Your task to perform on an android device: open app "Instagram" (install if not already installed) Image 0: 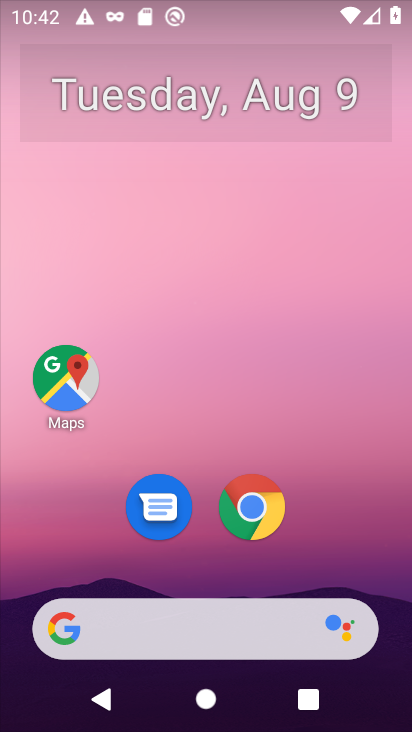
Step 0: drag from (146, 631) to (189, 172)
Your task to perform on an android device: open app "Instagram" (install if not already installed) Image 1: 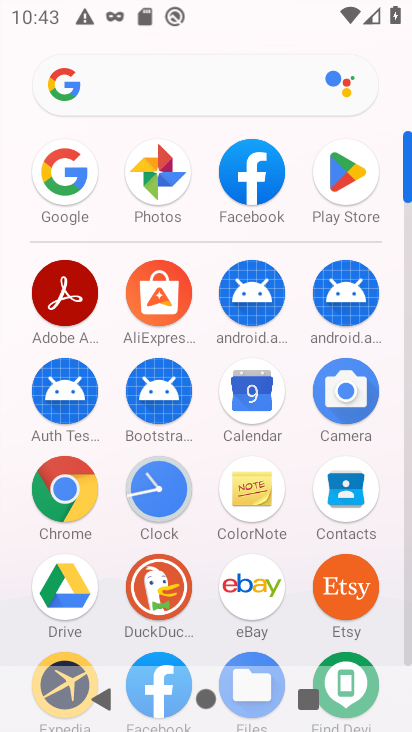
Step 1: drag from (201, 581) to (223, 436)
Your task to perform on an android device: open app "Instagram" (install if not already installed) Image 2: 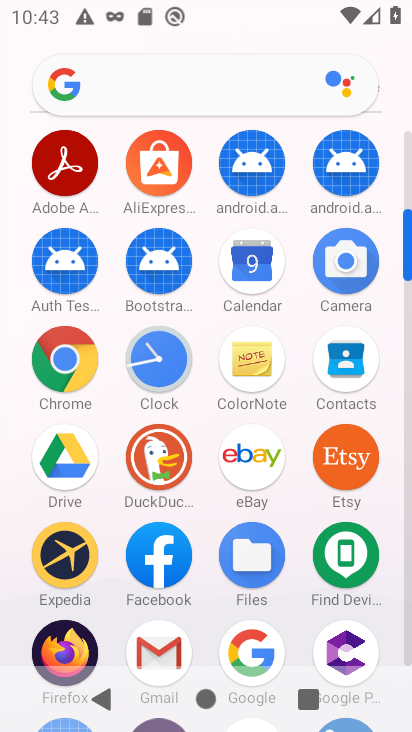
Step 2: drag from (206, 316) to (223, 533)
Your task to perform on an android device: open app "Instagram" (install if not already installed) Image 3: 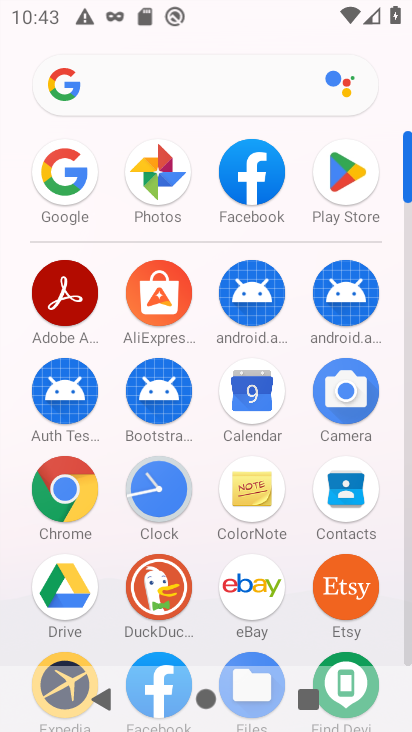
Step 3: click (352, 178)
Your task to perform on an android device: open app "Instagram" (install if not already installed) Image 4: 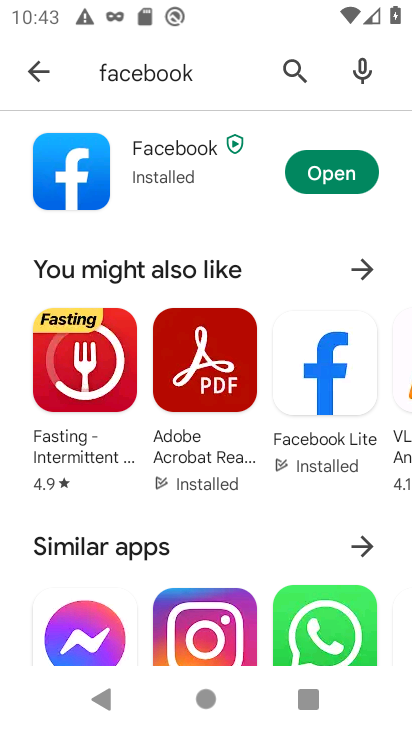
Step 4: click (294, 74)
Your task to perform on an android device: open app "Instagram" (install if not already installed) Image 5: 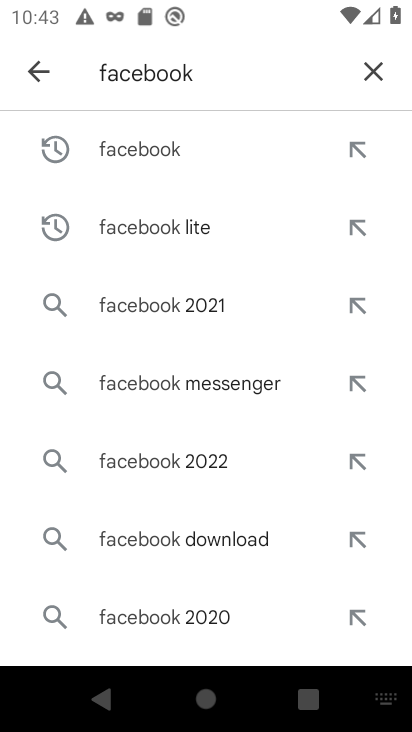
Step 5: click (378, 74)
Your task to perform on an android device: open app "Instagram" (install if not already installed) Image 6: 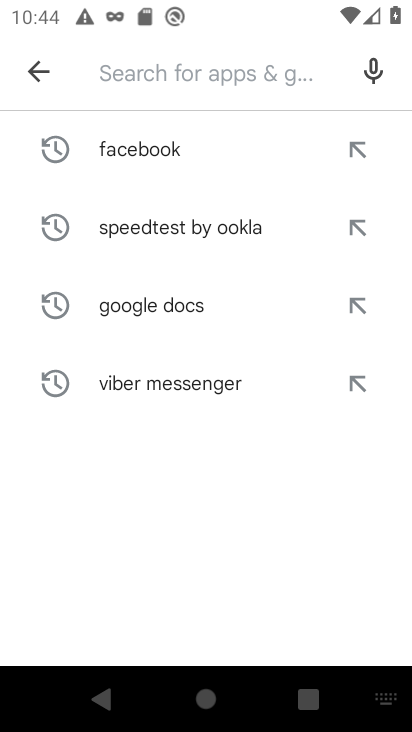
Step 6: click (203, 89)
Your task to perform on an android device: open app "Instagram" (install if not already installed) Image 7: 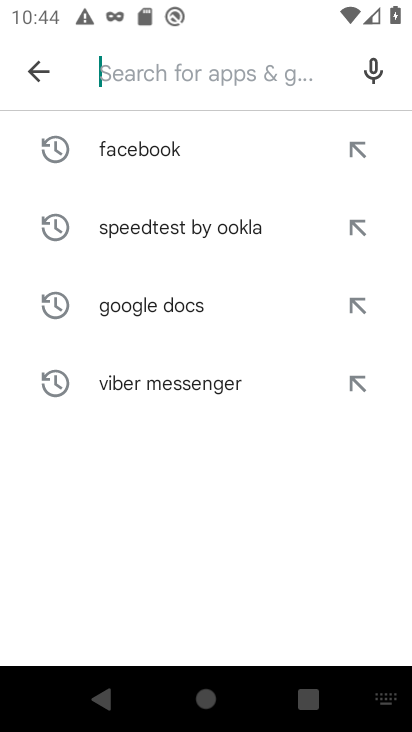
Step 7: click (203, 89)
Your task to perform on an android device: open app "Instagram" (install if not already installed) Image 8: 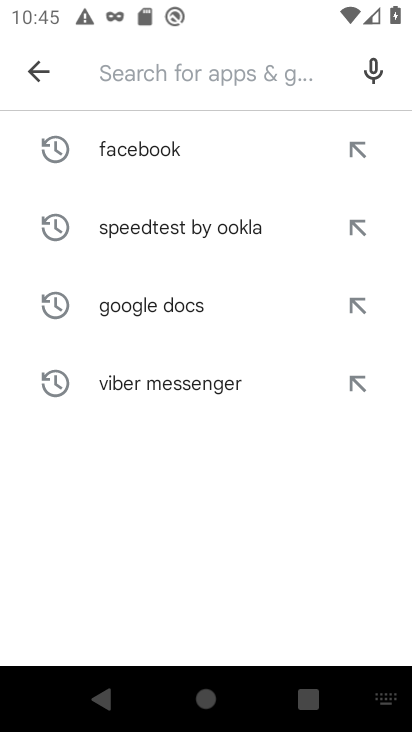
Step 8: type "Instagram"
Your task to perform on an android device: open app "Instagram" (install if not already installed) Image 9: 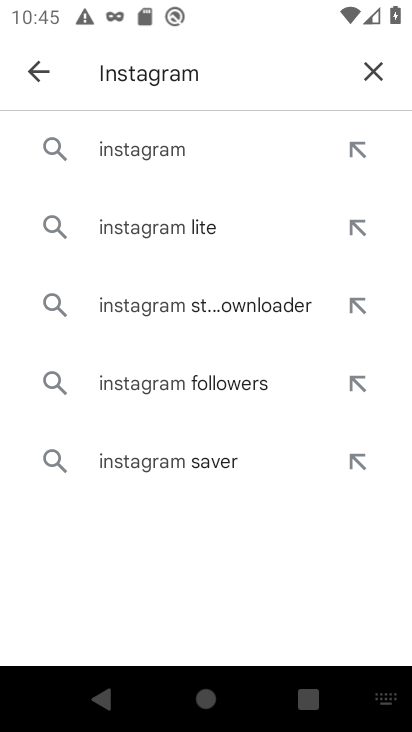
Step 9: click (119, 153)
Your task to perform on an android device: open app "Instagram" (install if not already installed) Image 10: 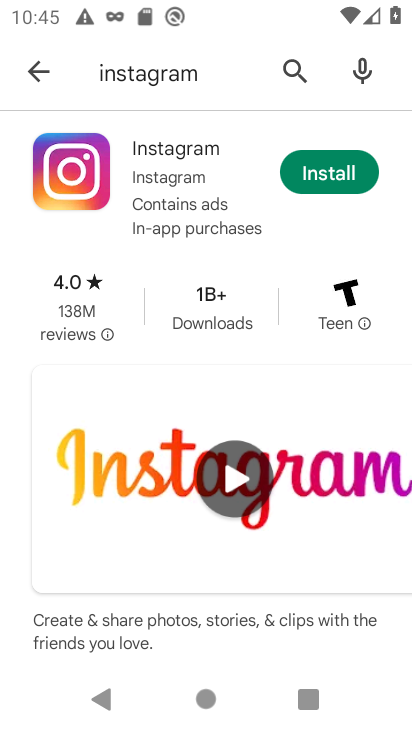
Step 10: click (322, 179)
Your task to perform on an android device: open app "Instagram" (install if not already installed) Image 11: 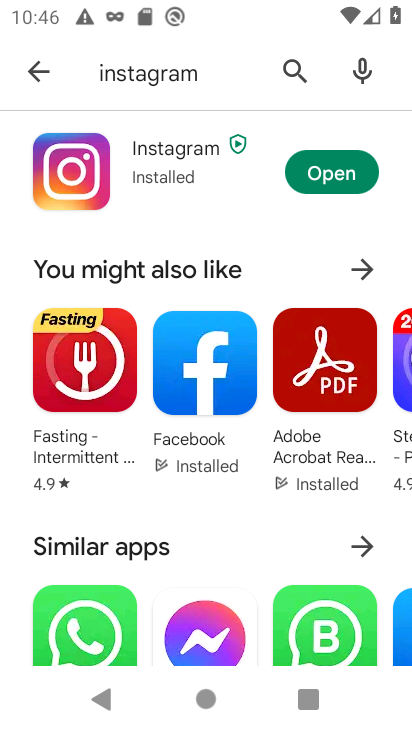
Step 11: click (326, 179)
Your task to perform on an android device: open app "Instagram" (install if not already installed) Image 12: 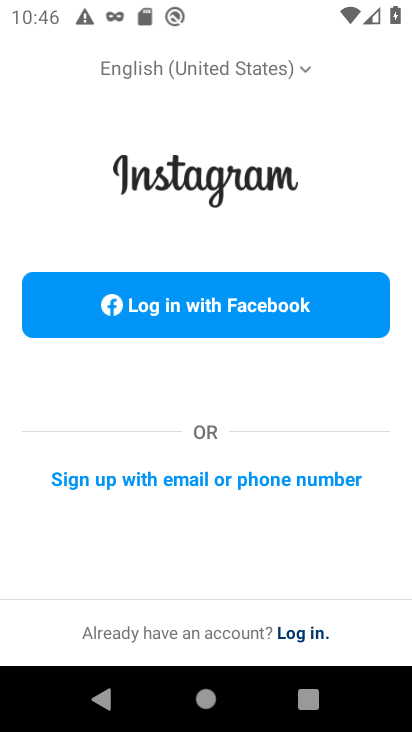
Step 12: task complete